Your task to perform on an android device: Go to internet settings Image 0: 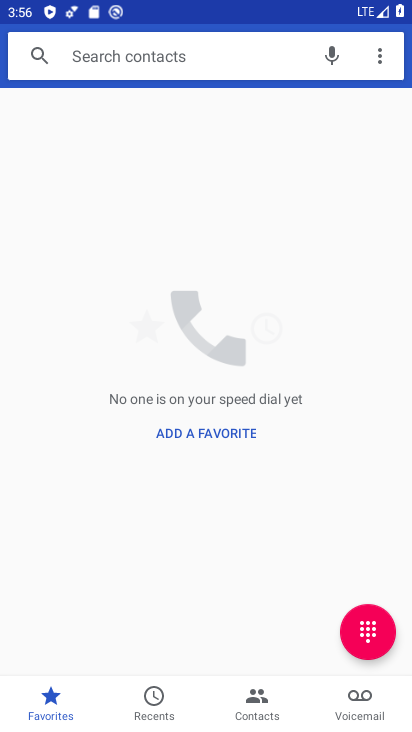
Step 0: press home button
Your task to perform on an android device: Go to internet settings Image 1: 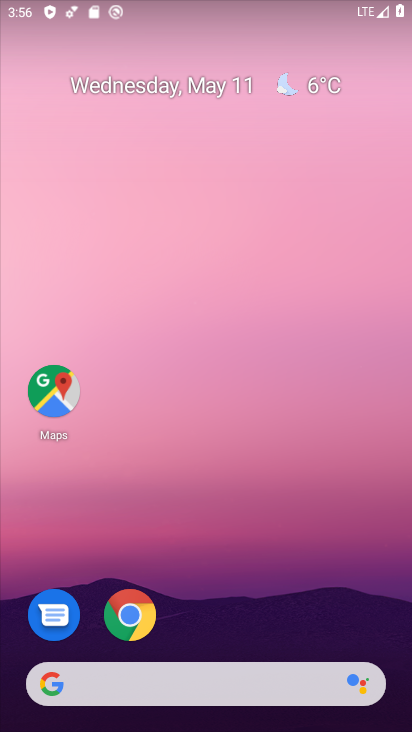
Step 1: drag from (298, 537) to (270, 206)
Your task to perform on an android device: Go to internet settings Image 2: 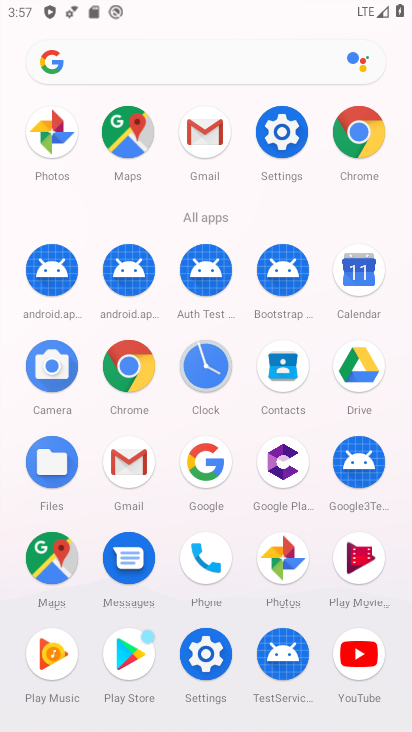
Step 2: click (285, 130)
Your task to perform on an android device: Go to internet settings Image 3: 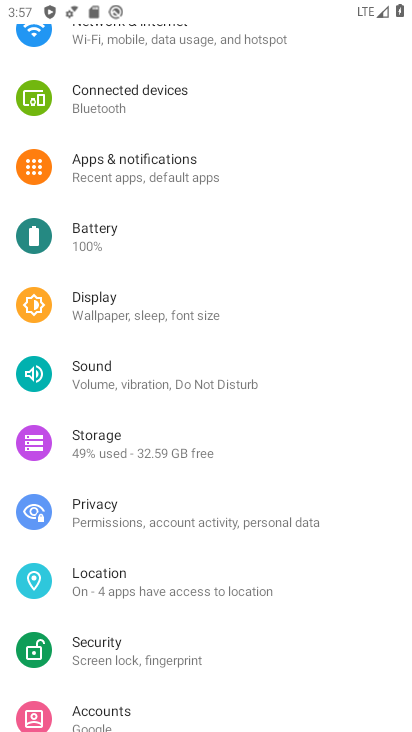
Step 3: drag from (127, 91) to (140, 225)
Your task to perform on an android device: Go to internet settings Image 4: 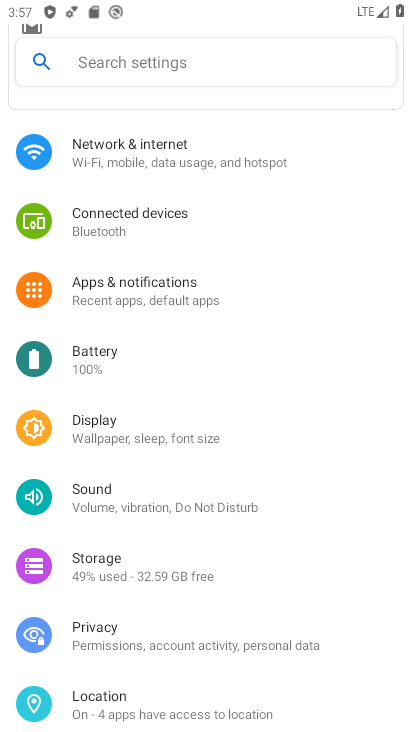
Step 4: click (93, 164)
Your task to perform on an android device: Go to internet settings Image 5: 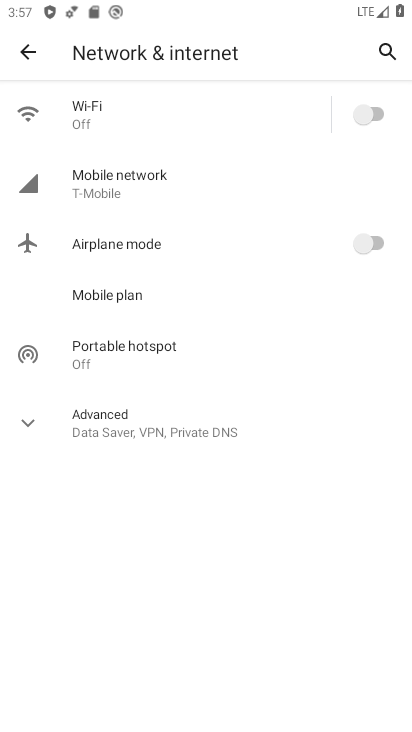
Step 5: task complete